Your task to perform on an android device: delete a single message in the gmail app Image 0: 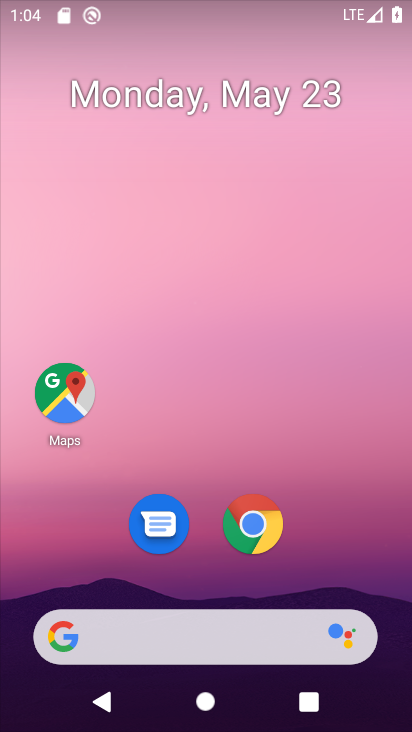
Step 0: drag from (240, 444) to (216, 0)
Your task to perform on an android device: delete a single message in the gmail app Image 1: 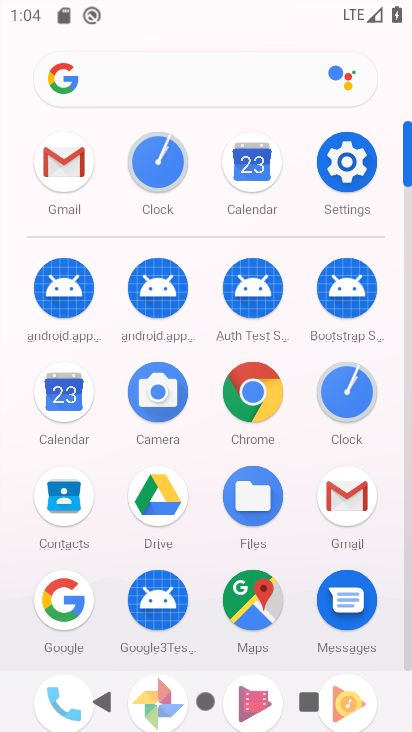
Step 1: click (64, 170)
Your task to perform on an android device: delete a single message in the gmail app Image 2: 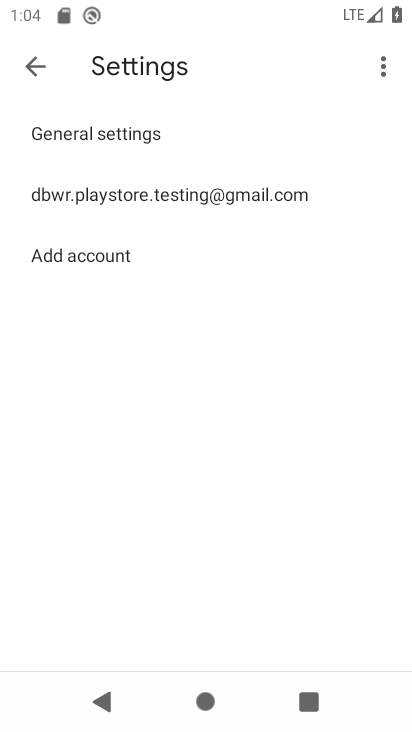
Step 2: click (34, 66)
Your task to perform on an android device: delete a single message in the gmail app Image 3: 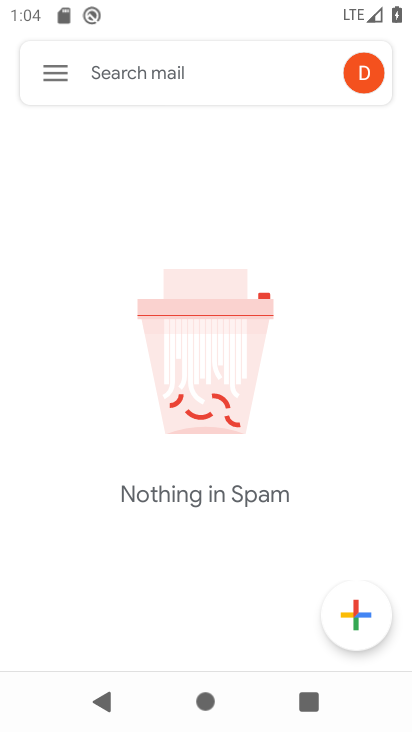
Step 3: click (53, 75)
Your task to perform on an android device: delete a single message in the gmail app Image 4: 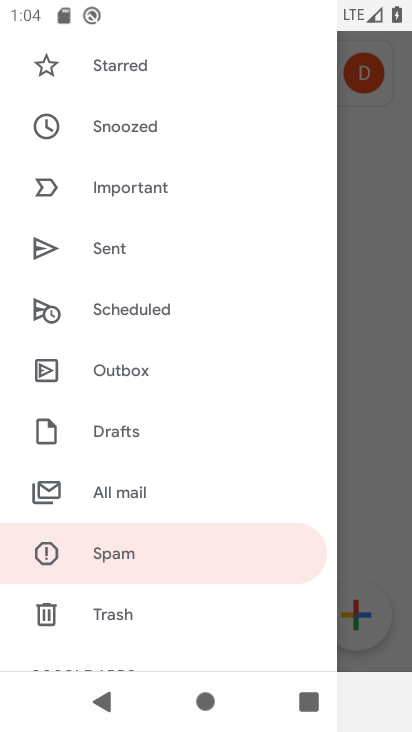
Step 4: click (144, 487)
Your task to perform on an android device: delete a single message in the gmail app Image 5: 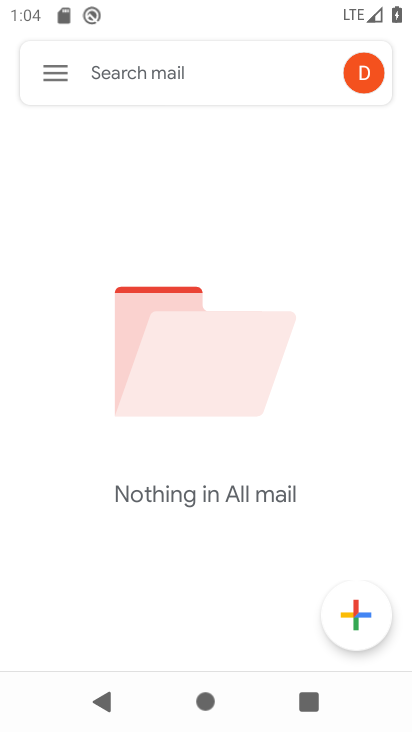
Step 5: task complete